Your task to perform on an android device: Do I have any events this weekend? Image 0: 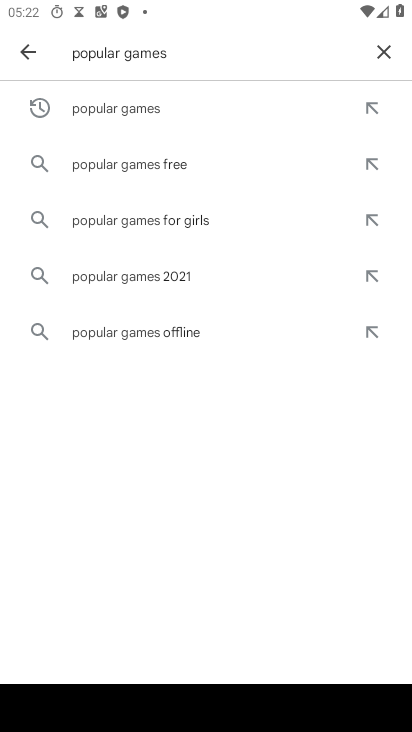
Step 0: drag from (342, 648) to (321, 60)
Your task to perform on an android device: Do I have any events this weekend? Image 1: 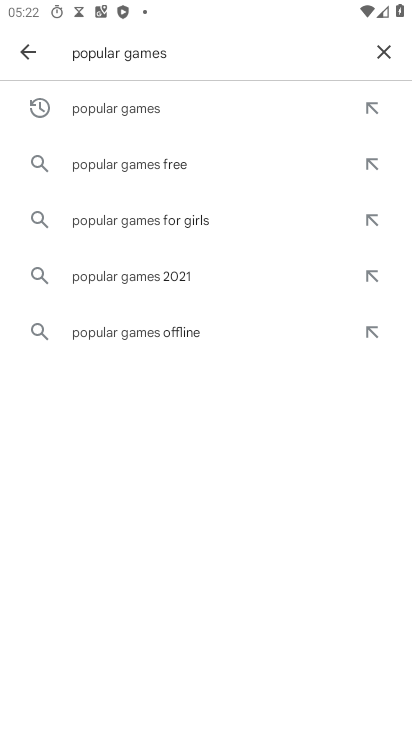
Step 1: click (27, 49)
Your task to perform on an android device: Do I have any events this weekend? Image 2: 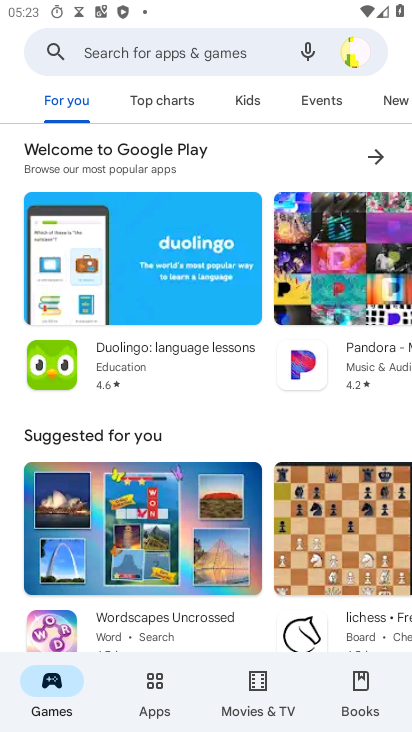
Step 2: press back button
Your task to perform on an android device: Do I have any events this weekend? Image 3: 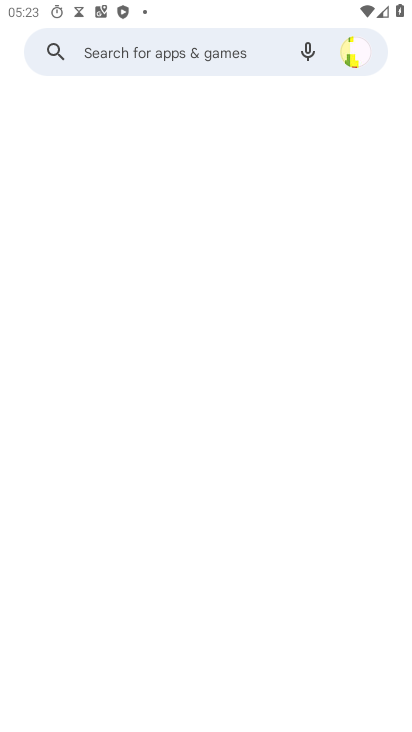
Step 3: press back button
Your task to perform on an android device: Do I have any events this weekend? Image 4: 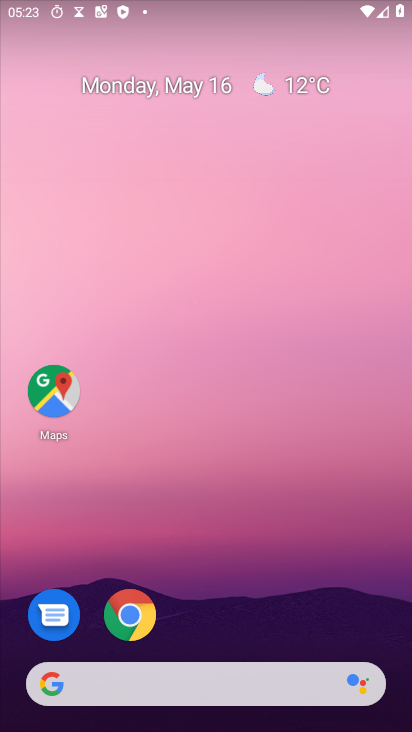
Step 4: drag from (337, 652) to (190, 198)
Your task to perform on an android device: Do I have any events this weekend? Image 5: 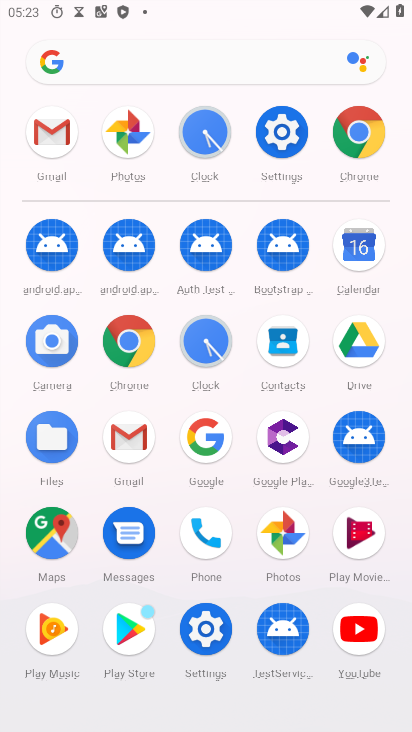
Step 5: click (355, 264)
Your task to perform on an android device: Do I have any events this weekend? Image 6: 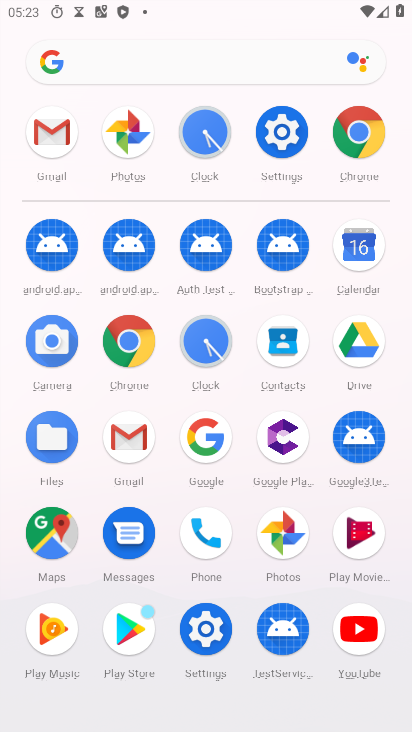
Step 6: click (355, 264)
Your task to perform on an android device: Do I have any events this weekend? Image 7: 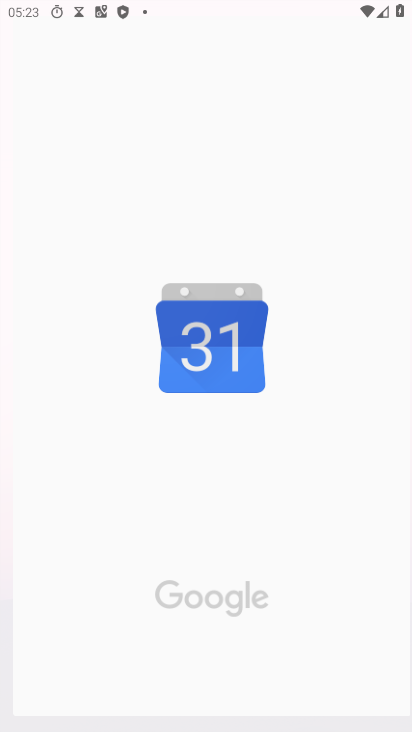
Step 7: click (355, 264)
Your task to perform on an android device: Do I have any events this weekend? Image 8: 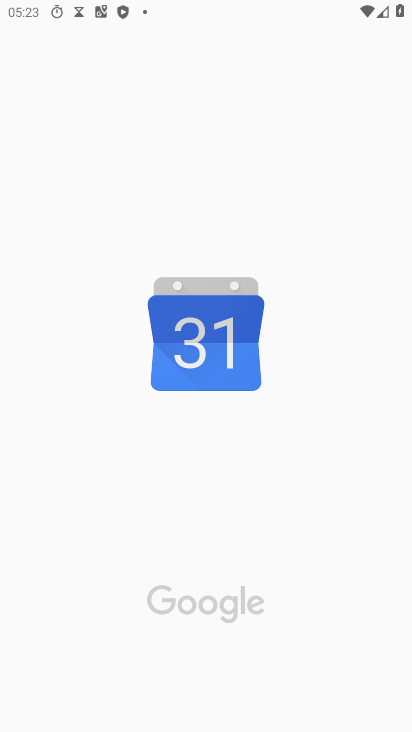
Step 8: click (355, 264)
Your task to perform on an android device: Do I have any events this weekend? Image 9: 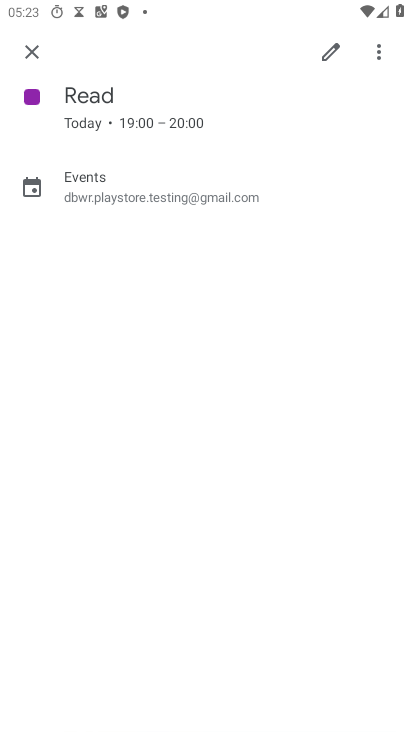
Step 9: click (35, 52)
Your task to perform on an android device: Do I have any events this weekend? Image 10: 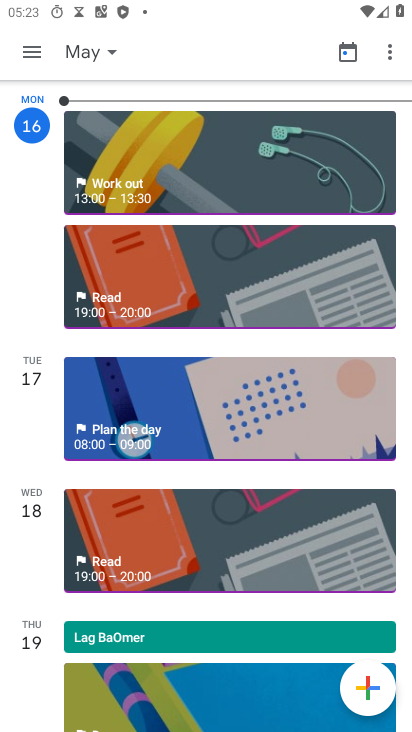
Step 10: drag from (110, 429) to (98, 239)
Your task to perform on an android device: Do I have any events this weekend? Image 11: 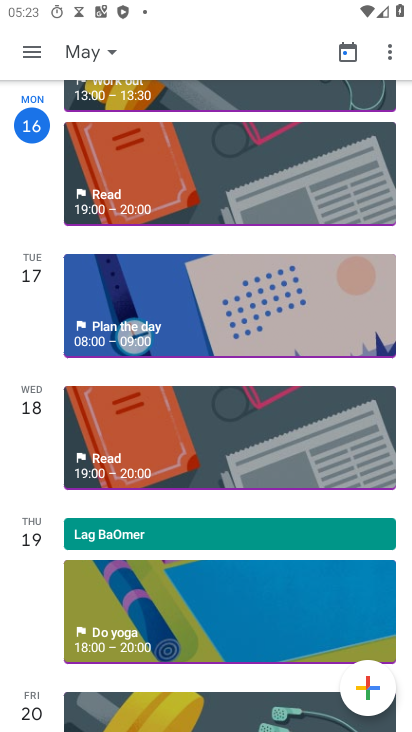
Step 11: drag from (206, 510) to (166, 164)
Your task to perform on an android device: Do I have any events this weekend? Image 12: 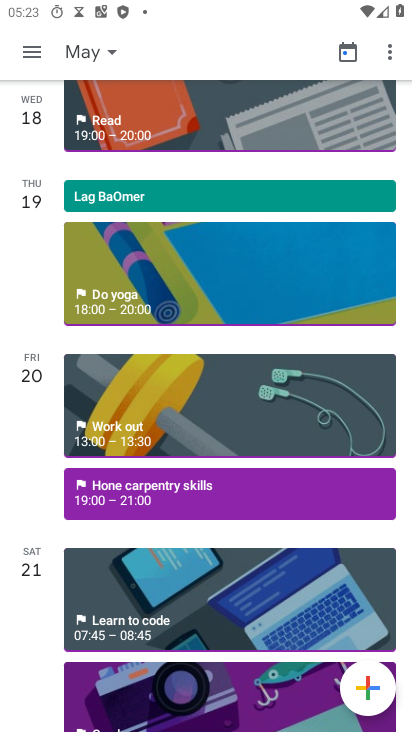
Step 12: drag from (216, 464) to (226, 386)
Your task to perform on an android device: Do I have any events this weekend? Image 13: 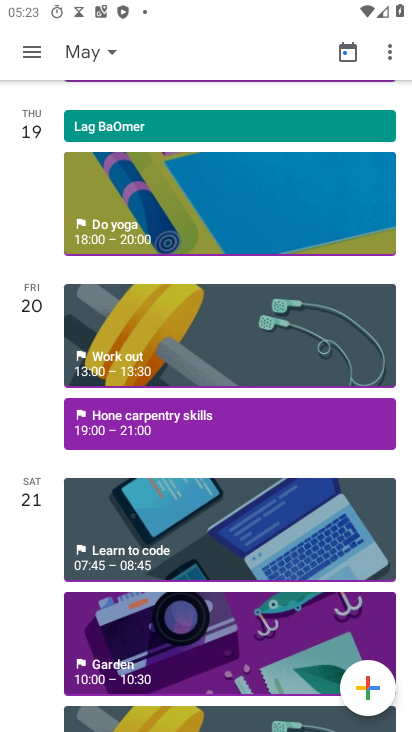
Step 13: drag from (213, 555) to (176, 38)
Your task to perform on an android device: Do I have any events this weekend? Image 14: 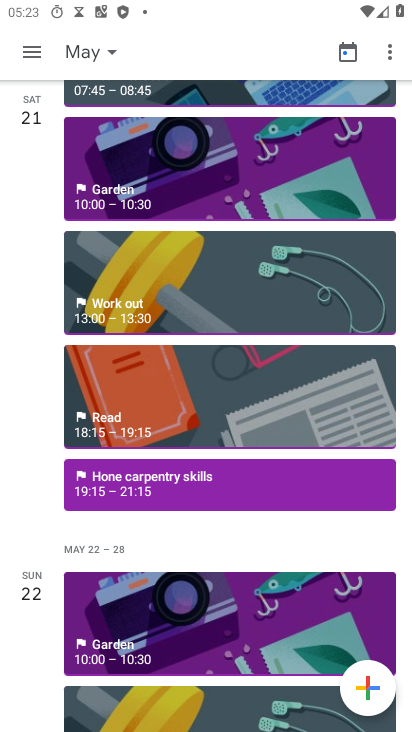
Step 14: drag from (163, 498) to (112, 218)
Your task to perform on an android device: Do I have any events this weekend? Image 15: 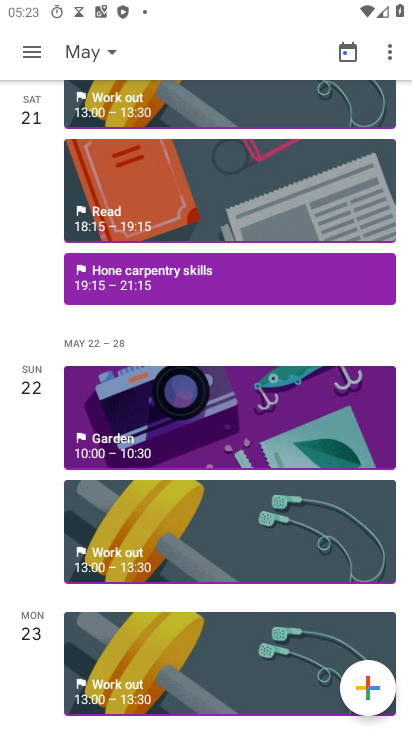
Step 15: click (107, 423)
Your task to perform on an android device: Do I have any events this weekend? Image 16: 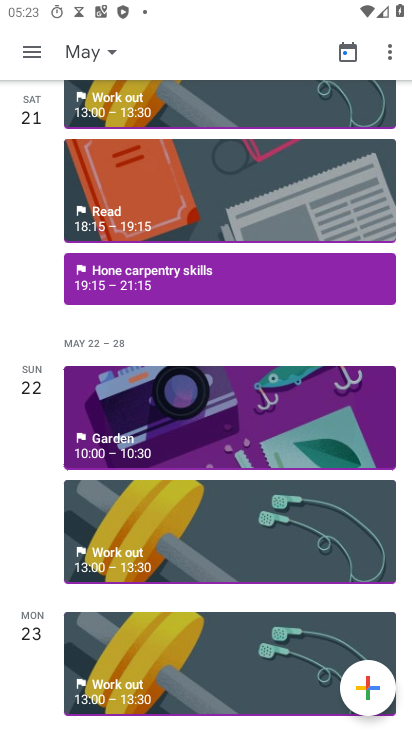
Step 16: click (107, 423)
Your task to perform on an android device: Do I have any events this weekend? Image 17: 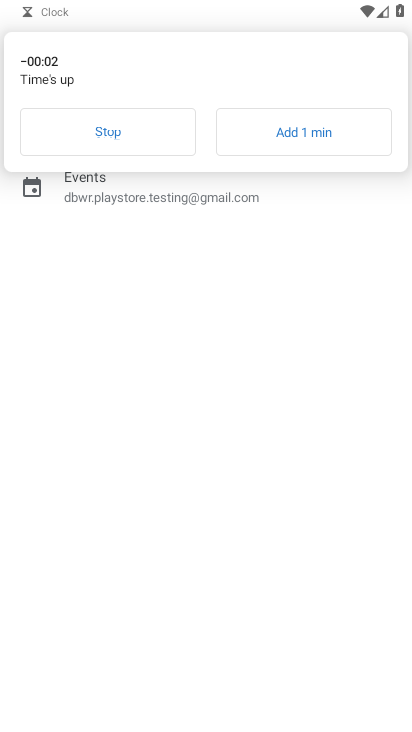
Step 17: click (120, 136)
Your task to perform on an android device: Do I have any events this weekend? Image 18: 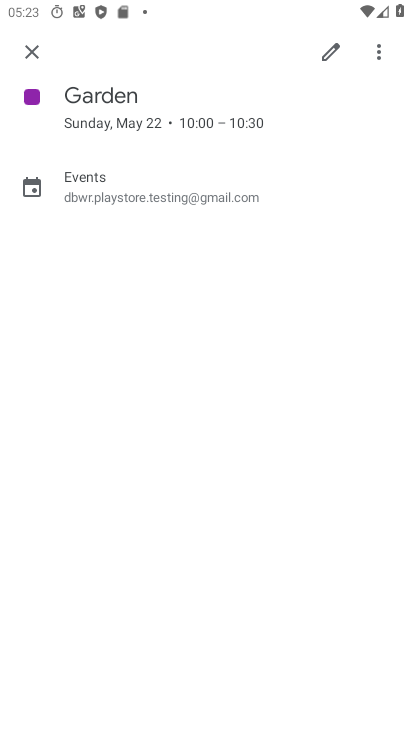
Step 18: task complete